Your task to perform on an android device: Show me the alarms in the clock app Image 0: 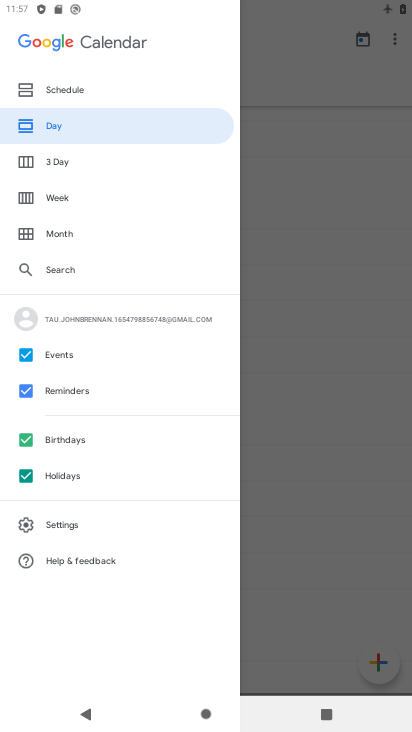
Step 0: press home button
Your task to perform on an android device: Show me the alarms in the clock app Image 1: 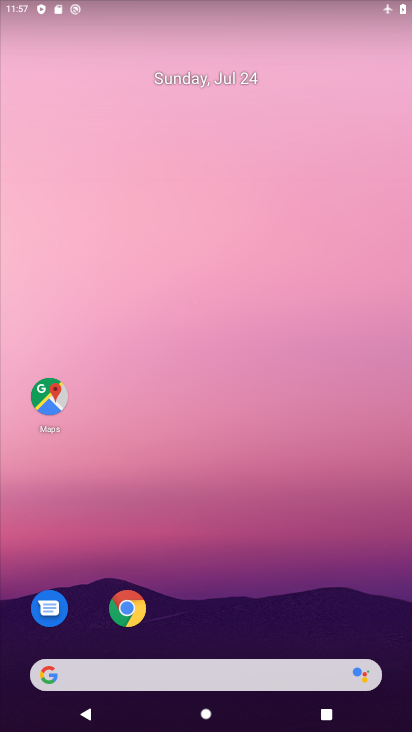
Step 1: drag from (205, 614) to (191, 155)
Your task to perform on an android device: Show me the alarms in the clock app Image 2: 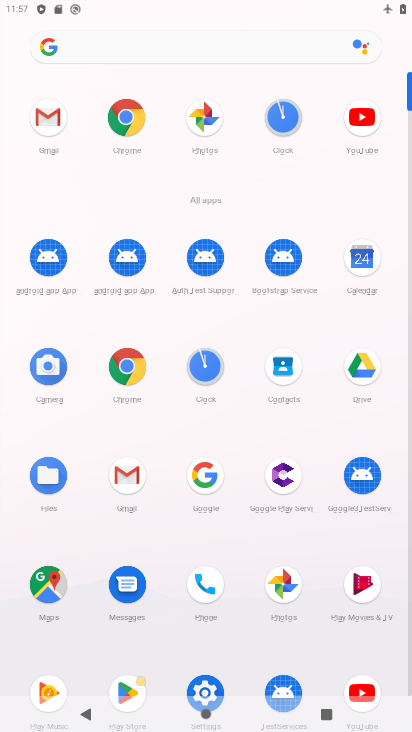
Step 2: click (280, 133)
Your task to perform on an android device: Show me the alarms in the clock app Image 3: 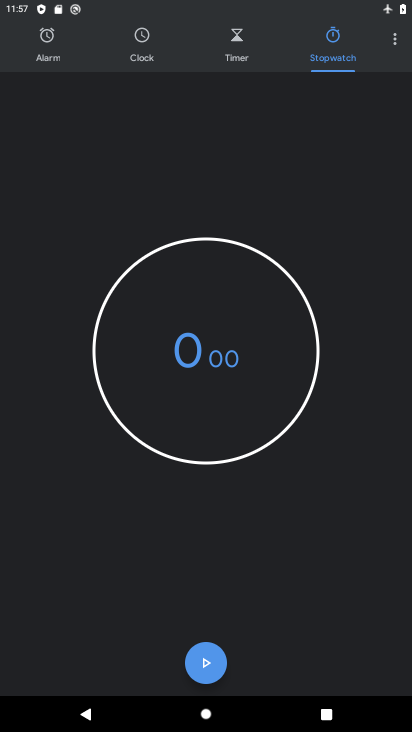
Step 3: click (54, 44)
Your task to perform on an android device: Show me the alarms in the clock app Image 4: 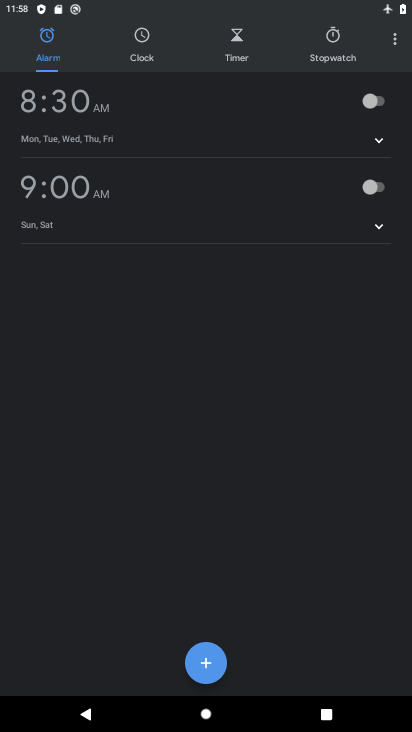
Step 4: task complete